Your task to perform on an android device: Open display settings Image 0: 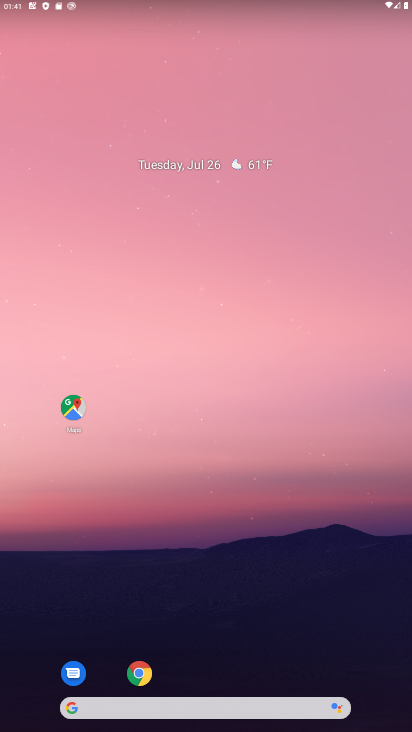
Step 0: drag from (230, 729) to (230, 167)
Your task to perform on an android device: Open display settings Image 1: 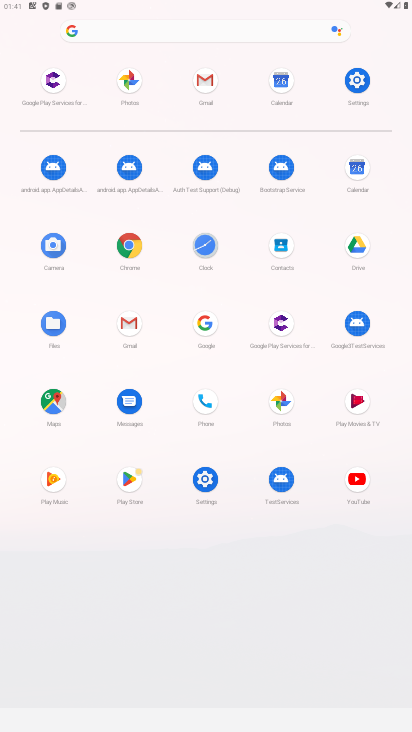
Step 1: click (363, 76)
Your task to perform on an android device: Open display settings Image 2: 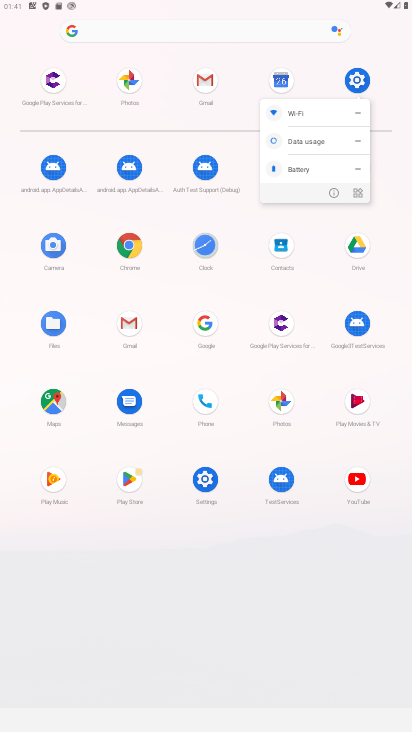
Step 2: click (357, 80)
Your task to perform on an android device: Open display settings Image 3: 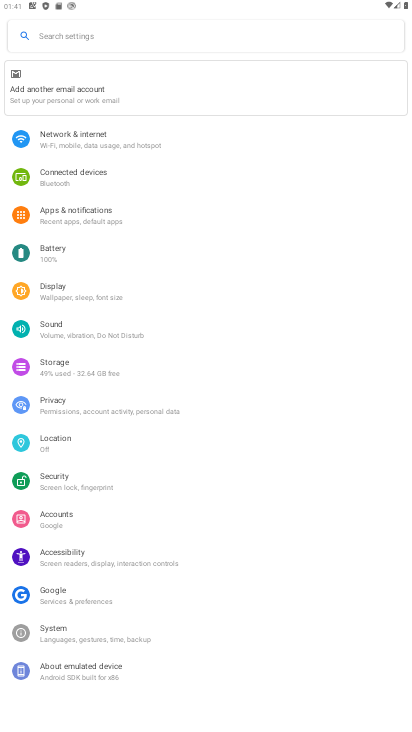
Step 3: click (52, 290)
Your task to perform on an android device: Open display settings Image 4: 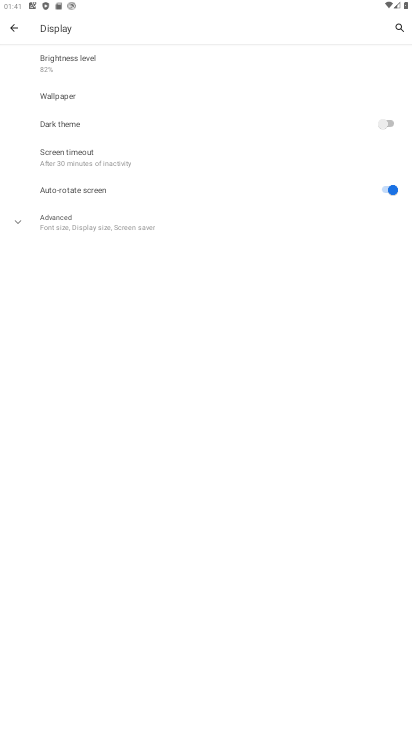
Step 4: task complete